Your task to perform on an android device: Open the Play Movies app and select the watchlist tab. Image 0: 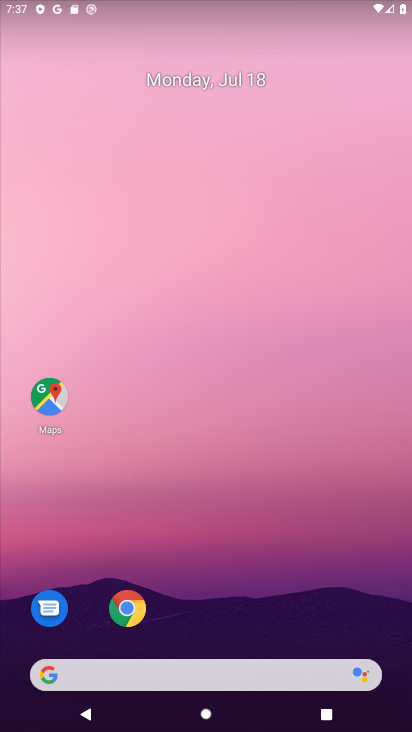
Step 0: drag from (209, 631) to (251, 89)
Your task to perform on an android device: Open the Play Movies app and select the watchlist tab. Image 1: 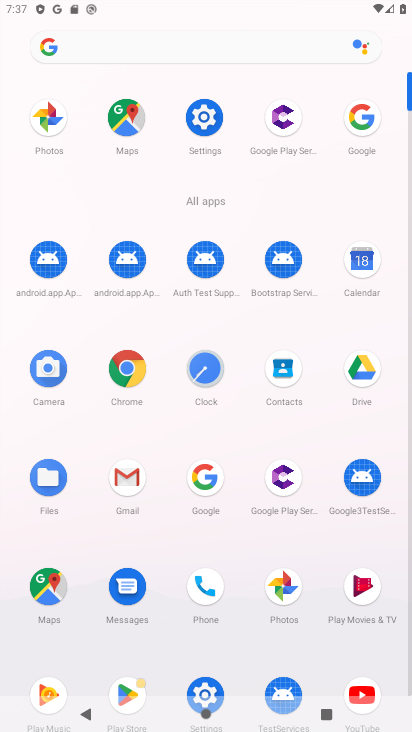
Step 1: click (364, 588)
Your task to perform on an android device: Open the Play Movies app and select the watchlist tab. Image 2: 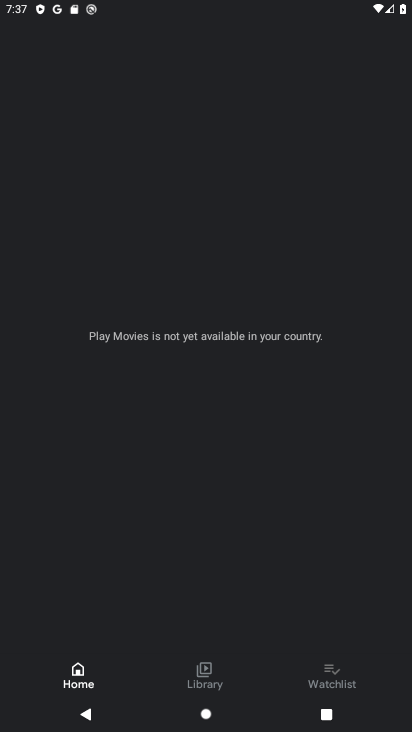
Step 2: click (337, 675)
Your task to perform on an android device: Open the Play Movies app and select the watchlist tab. Image 3: 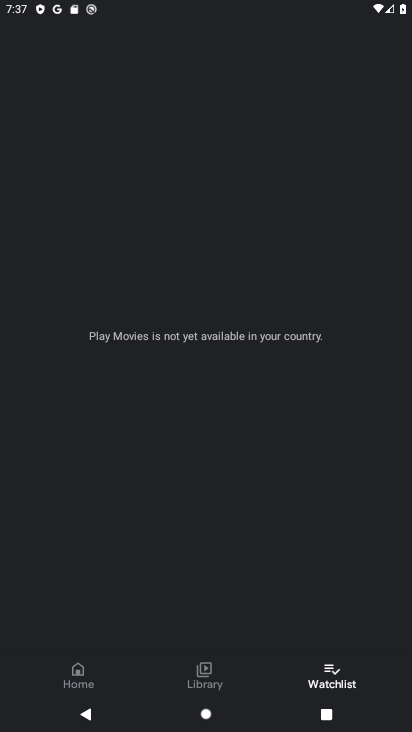
Step 3: task complete